Your task to perform on an android device: What's on my calendar tomorrow? Image 0: 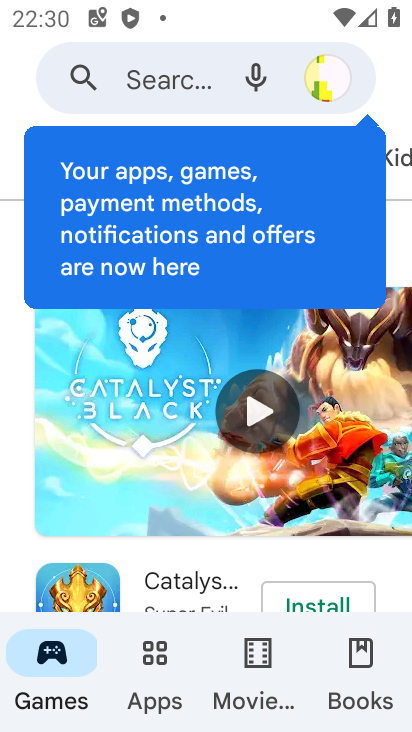
Step 0: press home button
Your task to perform on an android device: What's on my calendar tomorrow? Image 1: 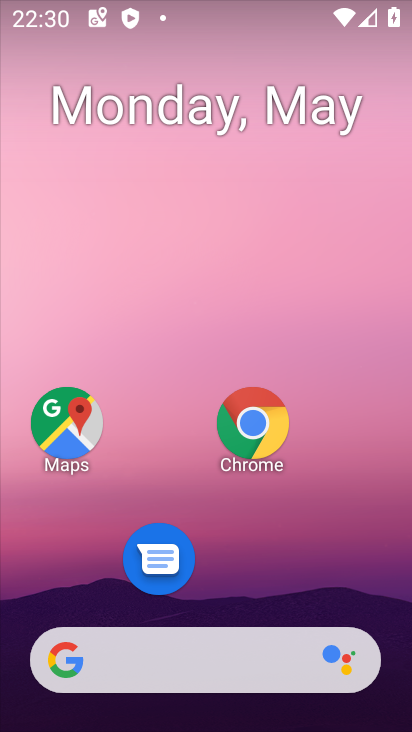
Step 1: click (292, 99)
Your task to perform on an android device: What's on my calendar tomorrow? Image 2: 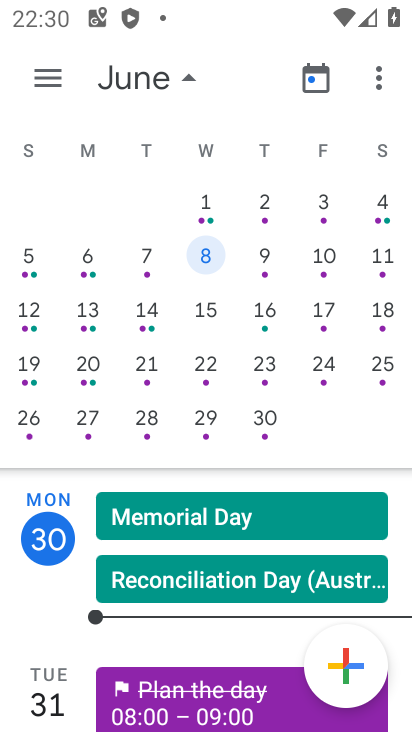
Step 2: task complete